Your task to perform on an android device: turn on javascript in the chrome app Image 0: 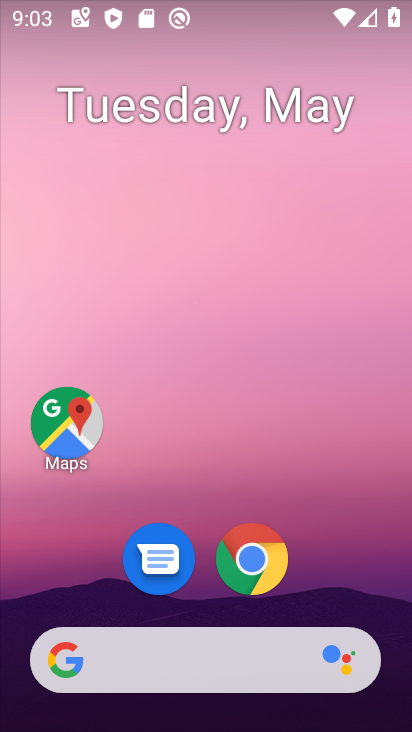
Step 0: click (253, 560)
Your task to perform on an android device: turn on javascript in the chrome app Image 1: 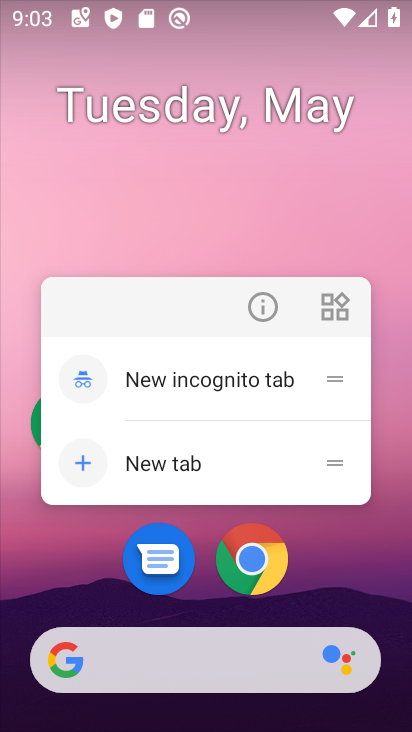
Step 1: click (254, 547)
Your task to perform on an android device: turn on javascript in the chrome app Image 2: 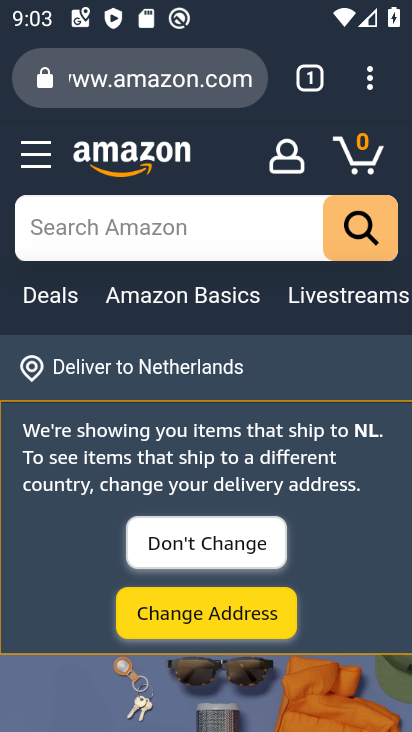
Step 2: click (364, 72)
Your task to perform on an android device: turn on javascript in the chrome app Image 3: 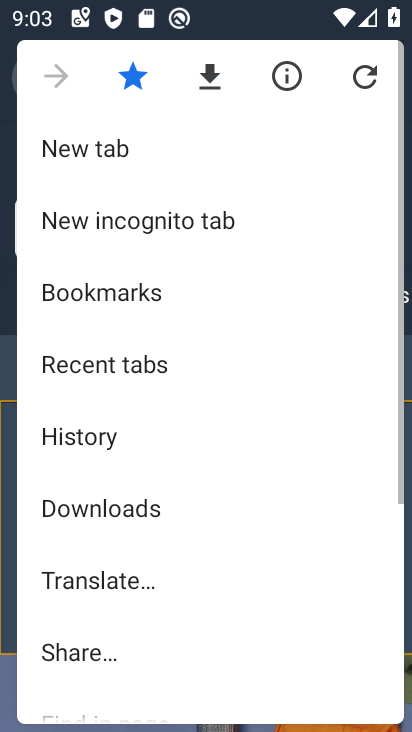
Step 3: drag from (121, 511) to (189, 78)
Your task to perform on an android device: turn on javascript in the chrome app Image 4: 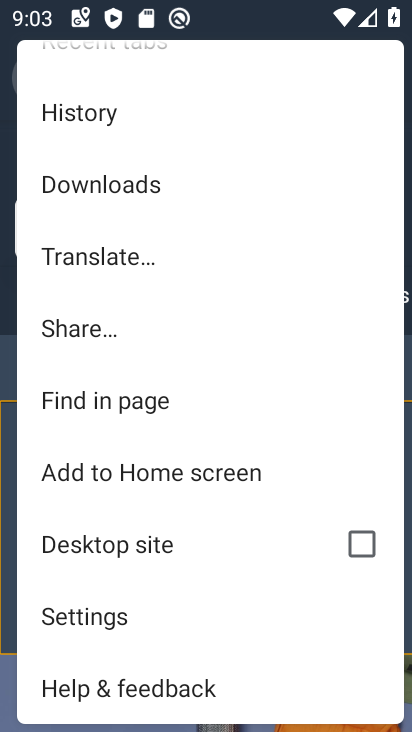
Step 4: click (103, 607)
Your task to perform on an android device: turn on javascript in the chrome app Image 5: 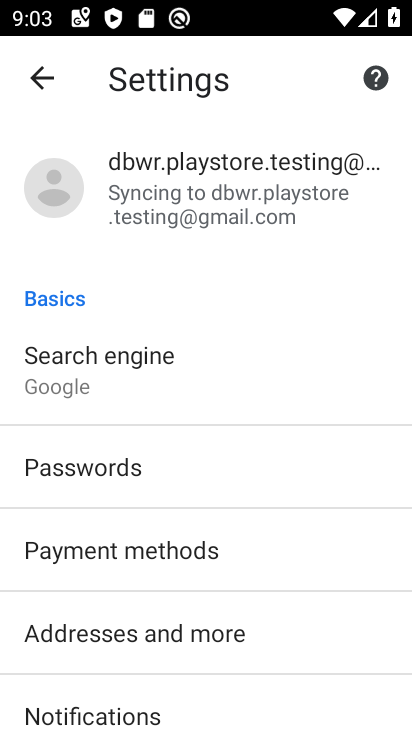
Step 5: drag from (114, 535) to (101, 115)
Your task to perform on an android device: turn on javascript in the chrome app Image 6: 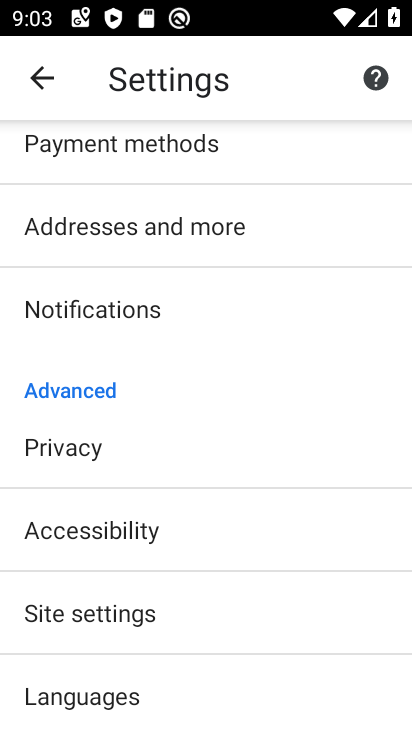
Step 6: click (128, 613)
Your task to perform on an android device: turn on javascript in the chrome app Image 7: 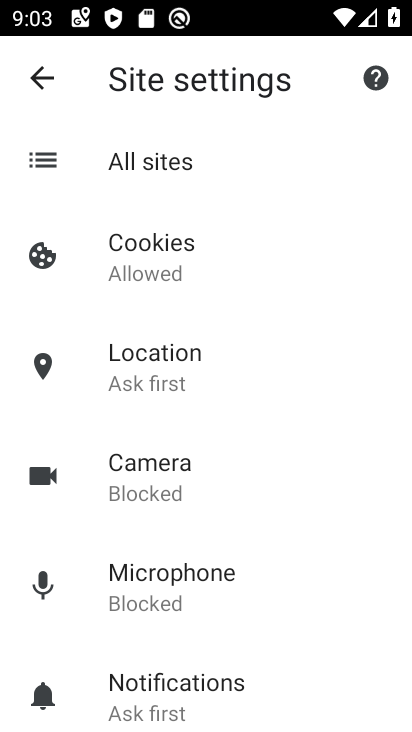
Step 7: drag from (239, 624) to (248, 184)
Your task to perform on an android device: turn on javascript in the chrome app Image 8: 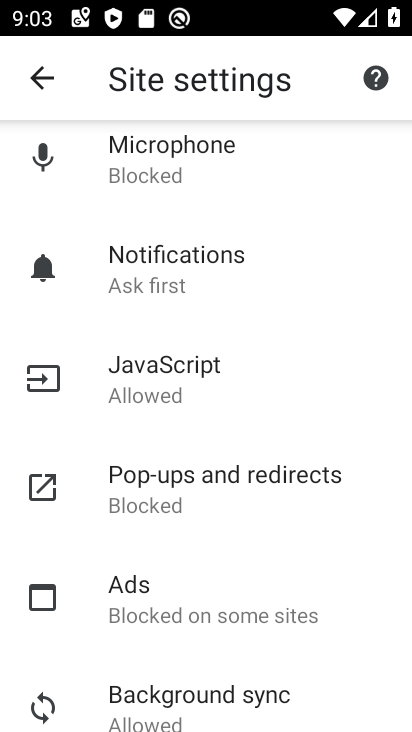
Step 8: click (137, 363)
Your task to perform on an android device: turn on javascript in the chrome app Image 9: 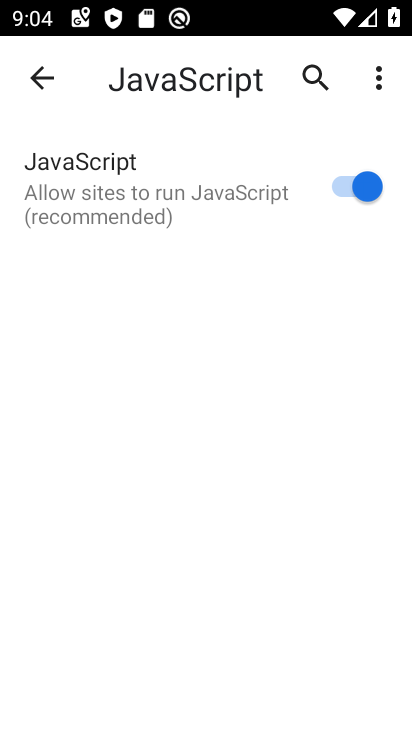
Step 9: task complete